Your task to perform on an android device: refresh tabs in the chrome app Image 0: 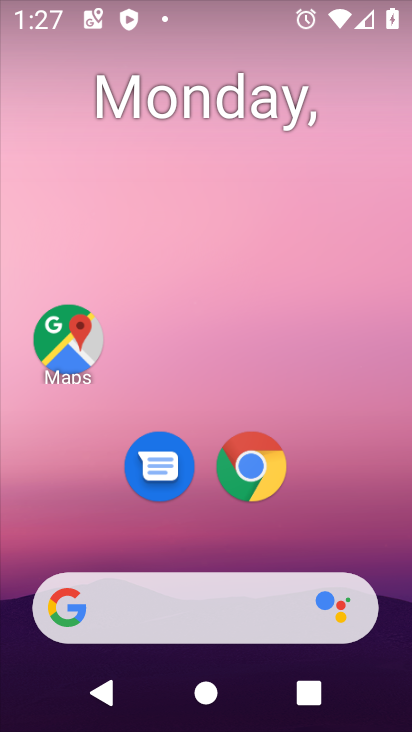
Step 0: drag from (395, 624) to (241, 51)
Your task to perform on an android device: refresh tabs in the chrome app Image 1: 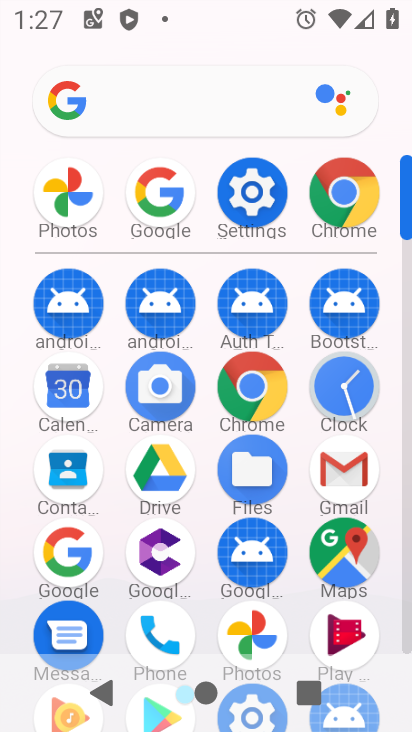
Step 1: click (247, 377)
Your task to perform on an android device: refresh tabs in the chrome app Image 2: 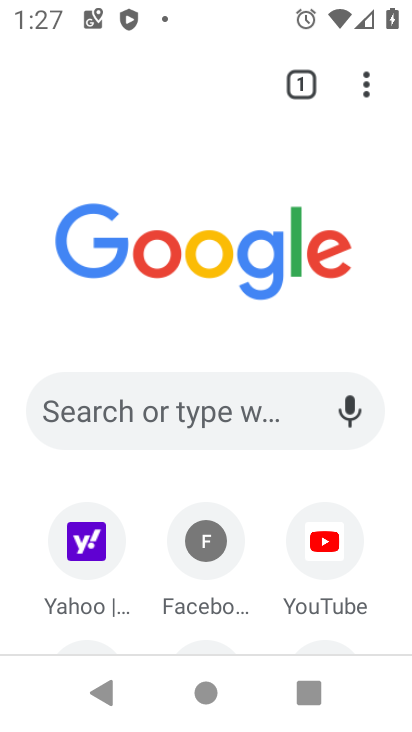
Step 2: click (372, 89)
Your task to perform on an android device: refresh tabs in the chrome app Image 3: 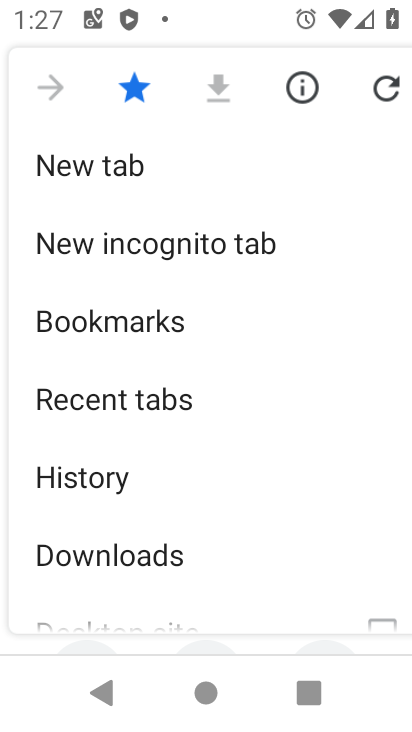
Step 3: drag from (190, 589) to (219, 403)
Your task to perform on an android device: refresh tabs in the chrome app Image 4: 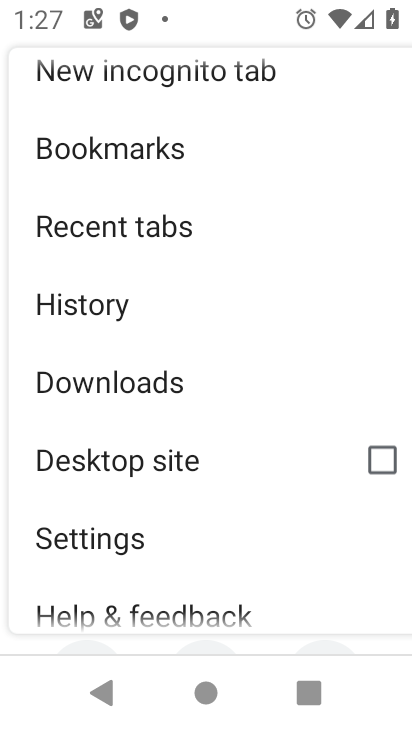
Step 4: drag from (278, 188) to (290, 570)
Your task to perform on an android device: refresh tabs in the chrome app Image 5: 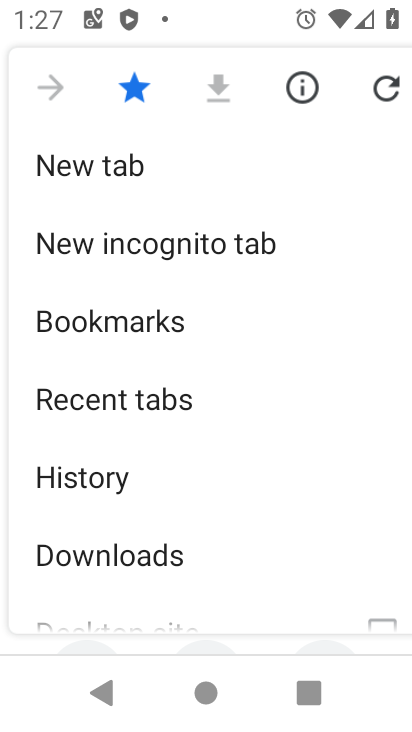
Step 5: click (377, 89)
Your task to perform on an android device: refresh tabs in the chrome app Image 6: 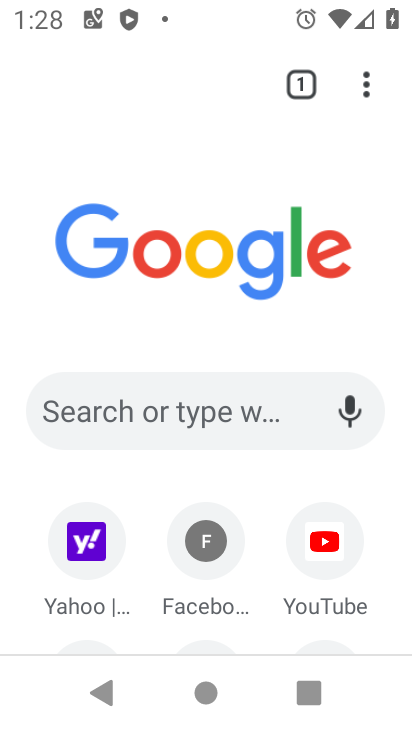
Step 6: task complete